Your task to perform on an android device: Go to Google Image 0: 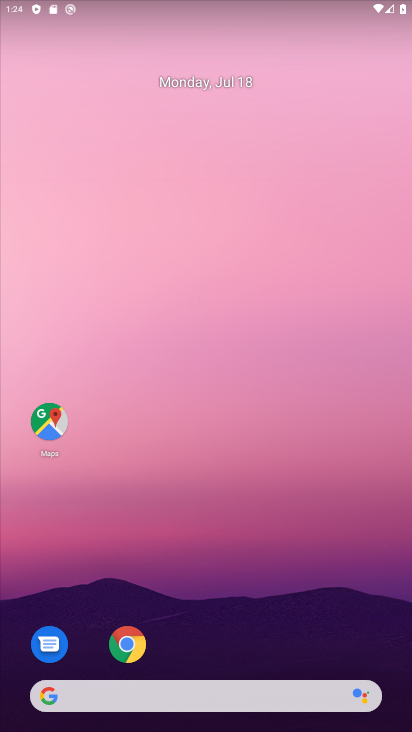
Step 0: drag from (228, 613) to (233, 132)
Your task to perform on an android device: Go to Google Image 1: 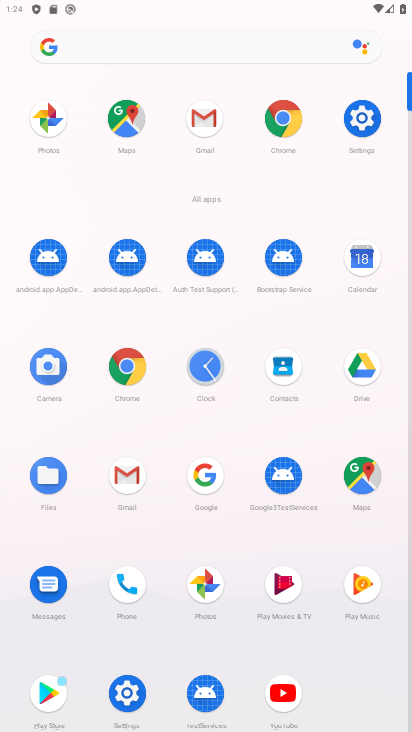
Step 1: click (204, 464)
Your task to perform on an android device: Go to Google Image 2: 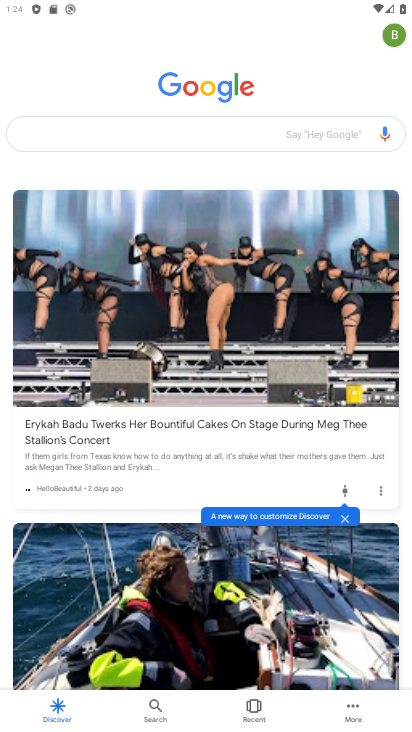
Step 2: task complete